Your task to perform on an android device: turn off translation in the chrome app Image 0: 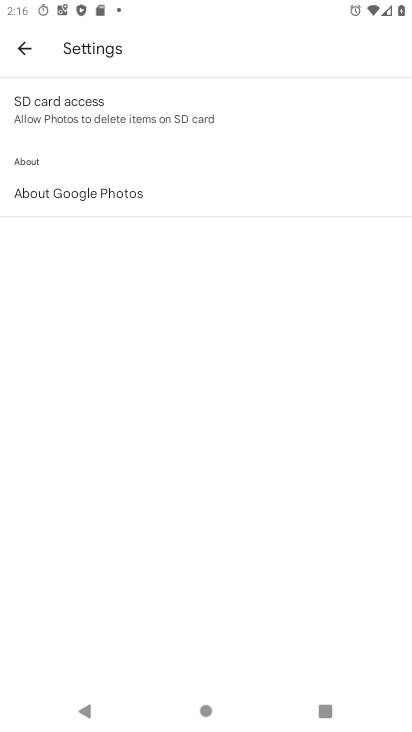
Step 0: drag from (224, 683) to (212, 265)
Your task to perform on an android device: turn off translation in the chrome app Image 1: 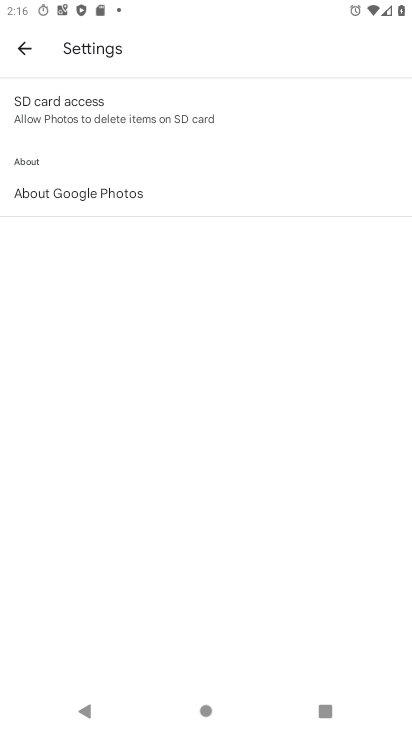
Step 1: press home button
Your task to perform on an android device: turn off translation in the chrome app Image 2: 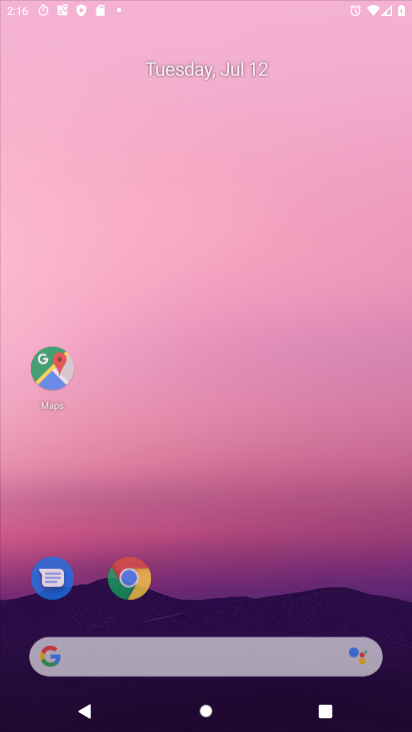
Step 2: drag from (226, 577) to (242, 141)
Your task to perform on an android device: turn off translation in the chrome app Image 3: 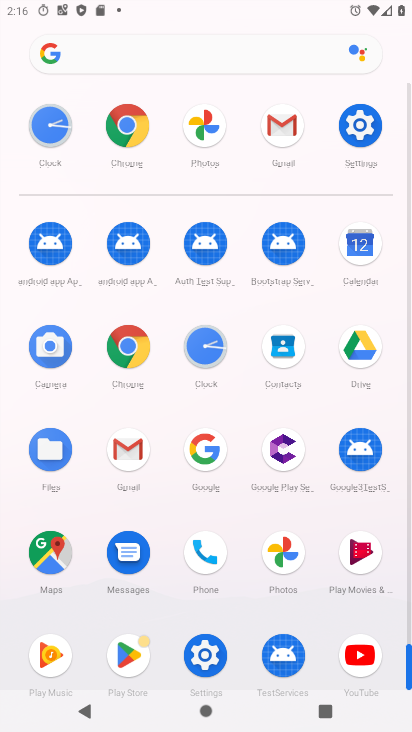
Step 3: click (121, 347)
Your task to perform on an android device: turn off translation in the chrome app Image 4: 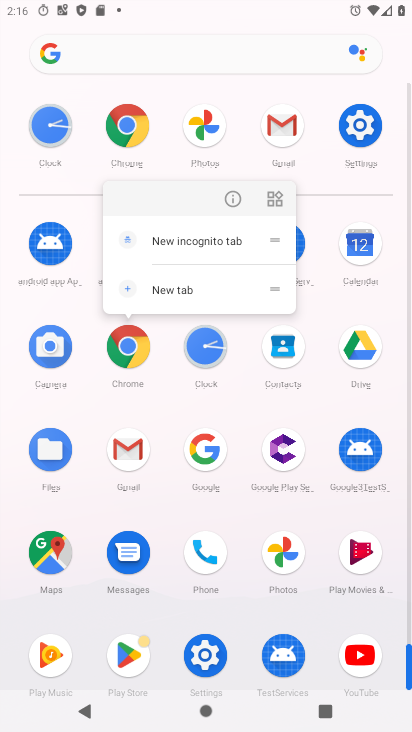
Step 4: click (235, 194)
Your task to perform on an android device: turn off translation in the chrome app Image 5: 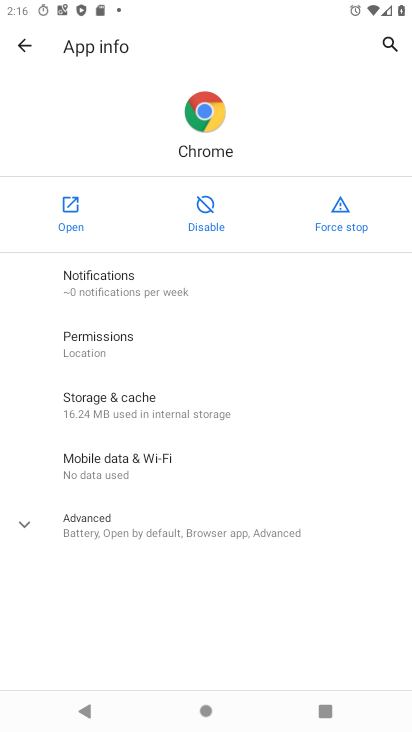
Step 5: click (67, 210)
Your task to perform on an android device: turn off translation in the chrome app Image 6: 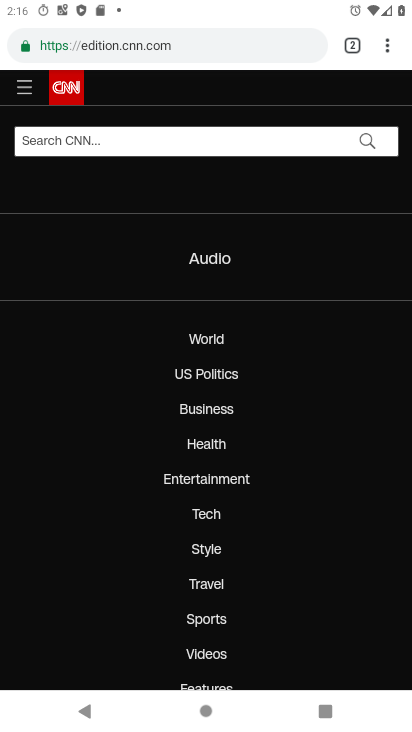
Step 6: drag from (249, 558) to (236, 208)
Your task to perform on an android device: turn off translation in the chrome app Image 7: 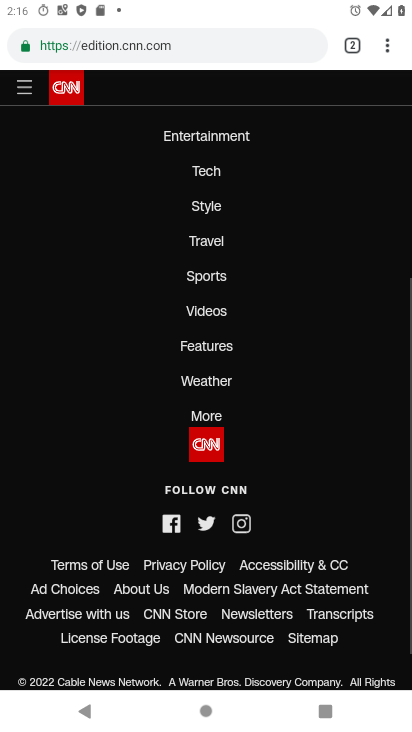
Step 7: drag from (238, 174) to (231, 730)
Your task to perform on an android device: turn off translation in the chrome app Image 8: 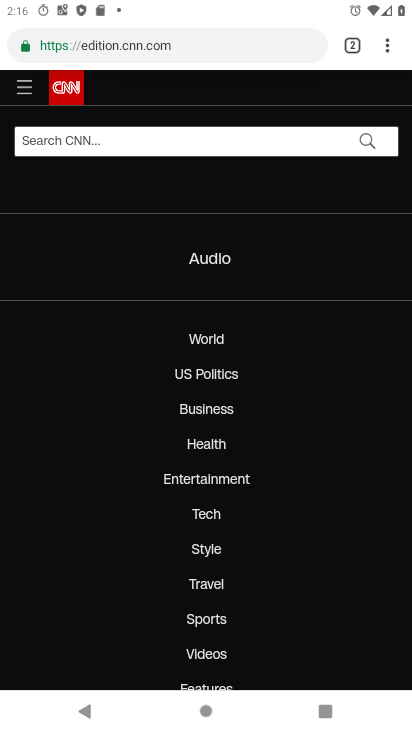
Step 8: drag from (216, 258) to (265, 620)
Your task to perform on an android device: turn off translation in the chrome app Image 9: 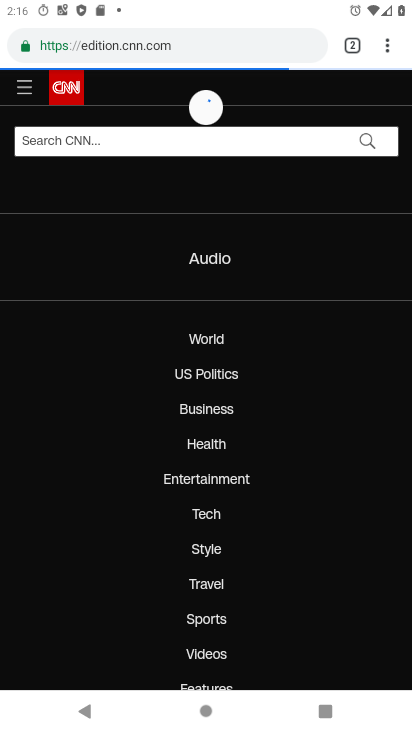
Step 9: click (384, 49)
Your task to perform on an android device: turn off translation in the chrome app Image 10: 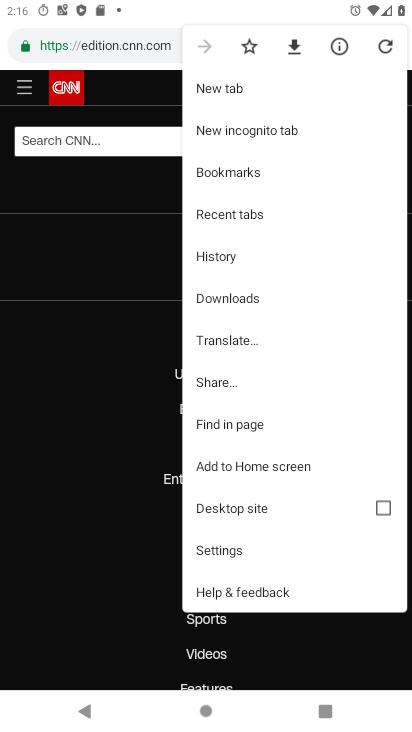
Step 10: drag from (262, 490) to (238, 178)
Your task to perform on an android device: turn off translation in the chrome app Image 11: 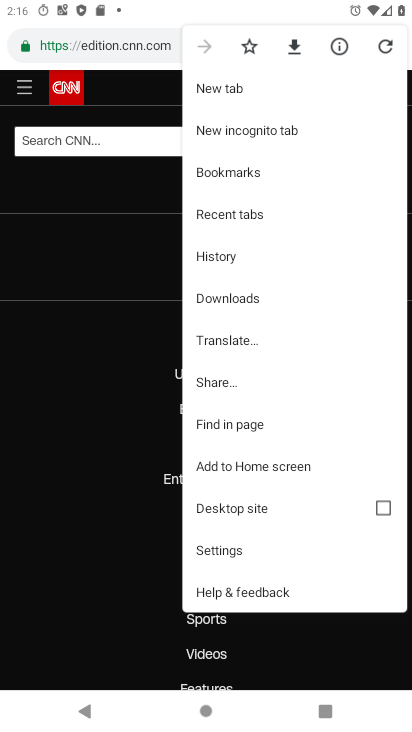
Step 11: click (226, 551)
Your task to perform on an android device: turn off translation in the chrome app Image 12: 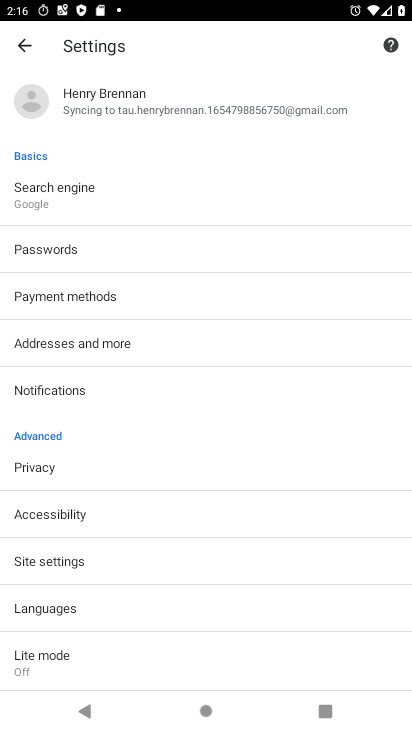
Step 12: drag from (129, 624) to (235, 319)
Your task to perform on an android device: turn off translation in the chrome app Image 13: 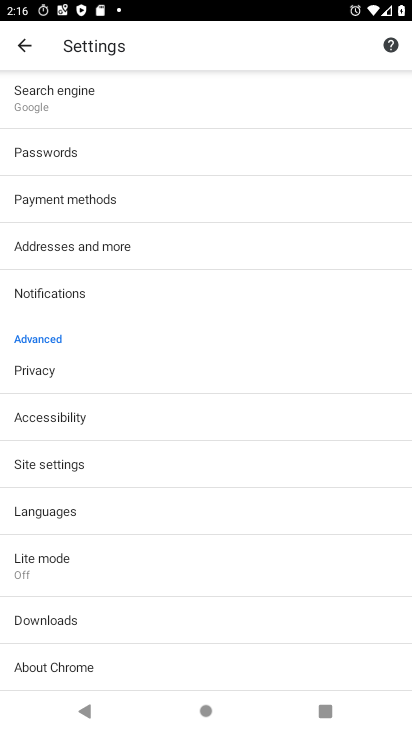
Step 13: drag from (108, 617) to (198, 376)
Your task to perform on an android device: turn off translation in the chrome app Image 14: 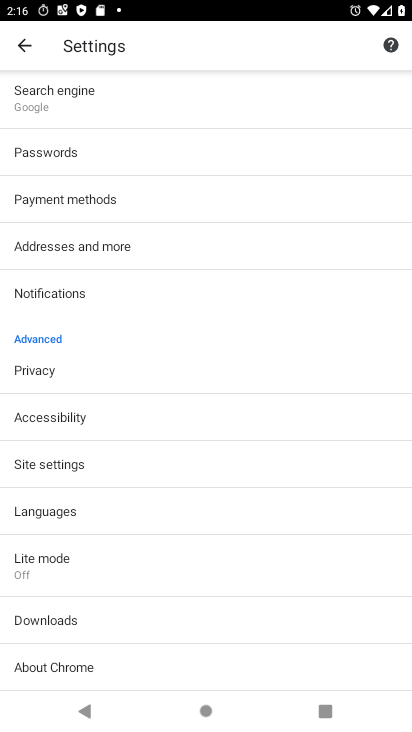
Step 14: click (79, 509)
Your task to perform on an android device: turn off translation in the chrome app Image 15: 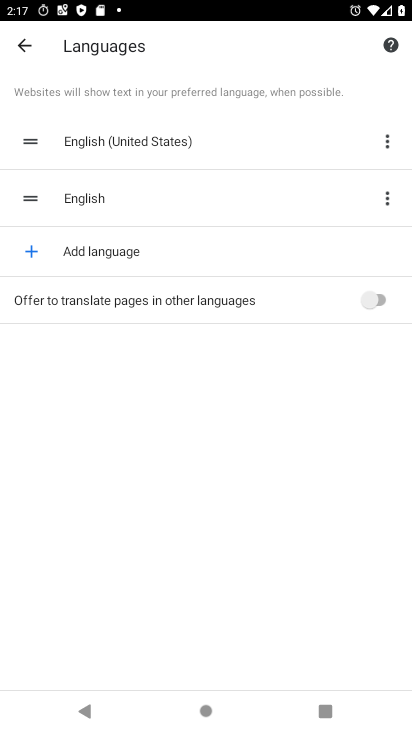
Step 15: task complete